Your task to perform on an android device: Add usb-c to usb-b to the cart on bestbuy Image 0: 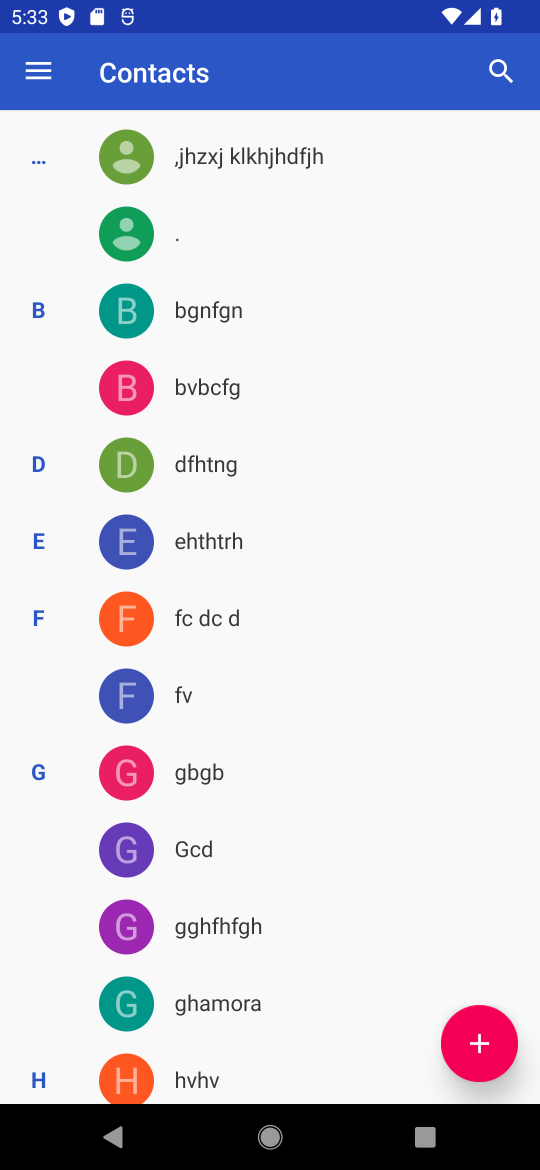
Step 0: press home button
Your task to perform on an android device: Add usb-c to usb-b to the cart on bestbuy Image 1: 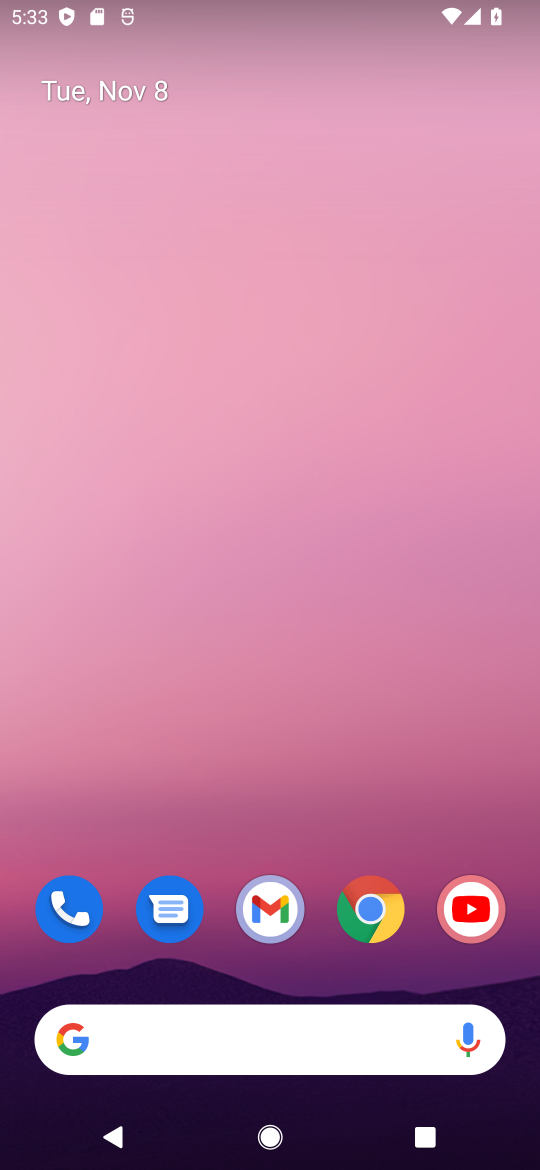
Step 1: click (369, 903)
Your task to perform on an android device: Add usb-c to usb-b to the cart on bestbuy Image 2: 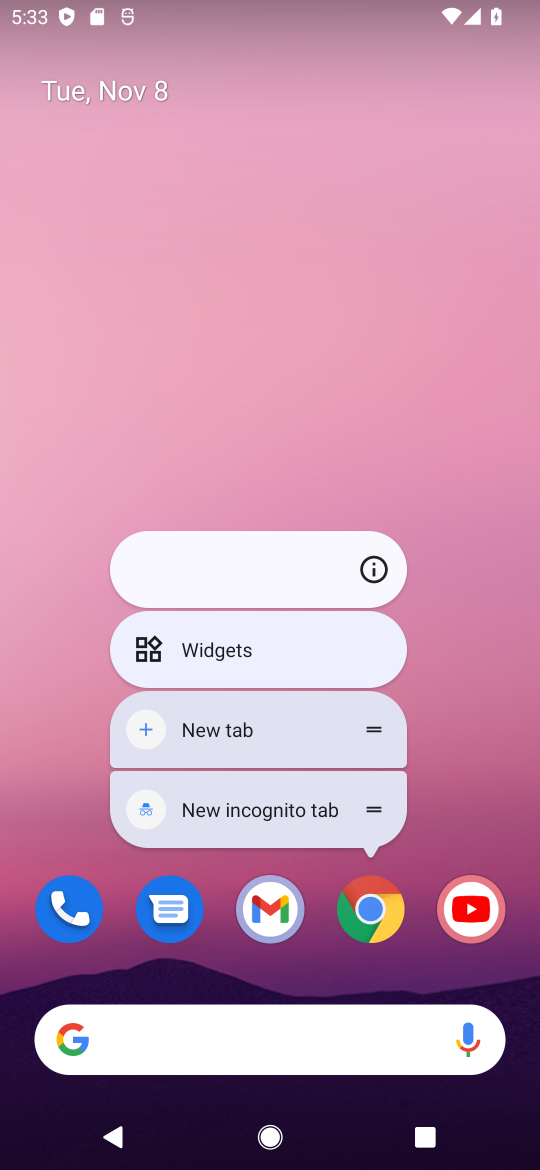
Step 2: click (369, 912)
Your task to perform on an android device: Add usb-c to usb-b to the cart on bestbuy Image 3: 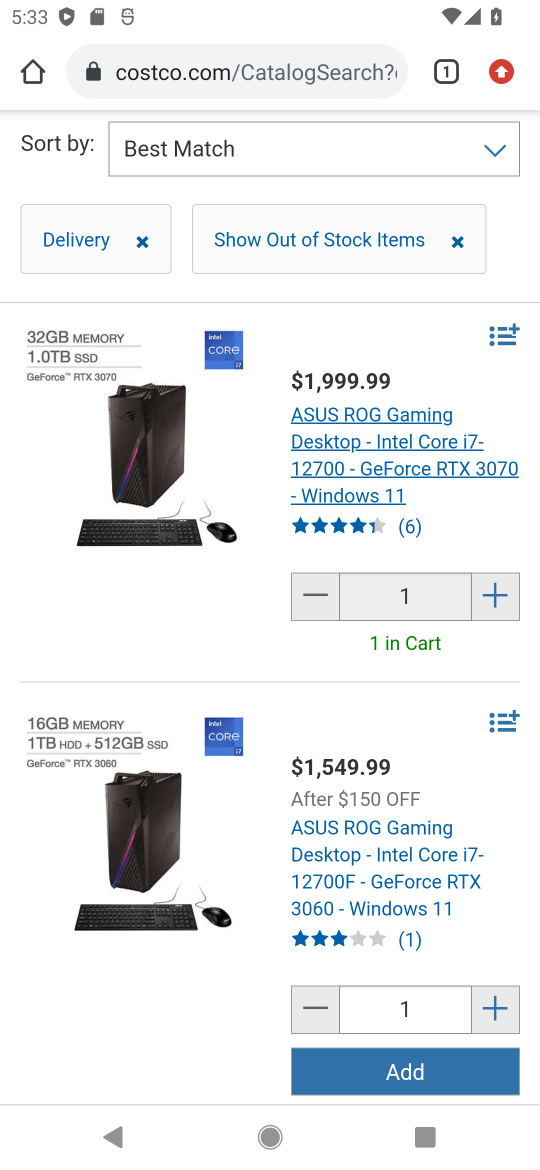
Step 3: click (339, 61)
Your task to perform on an android device: Add usb-c to usb-b to the cart on bestbuy Image 4: 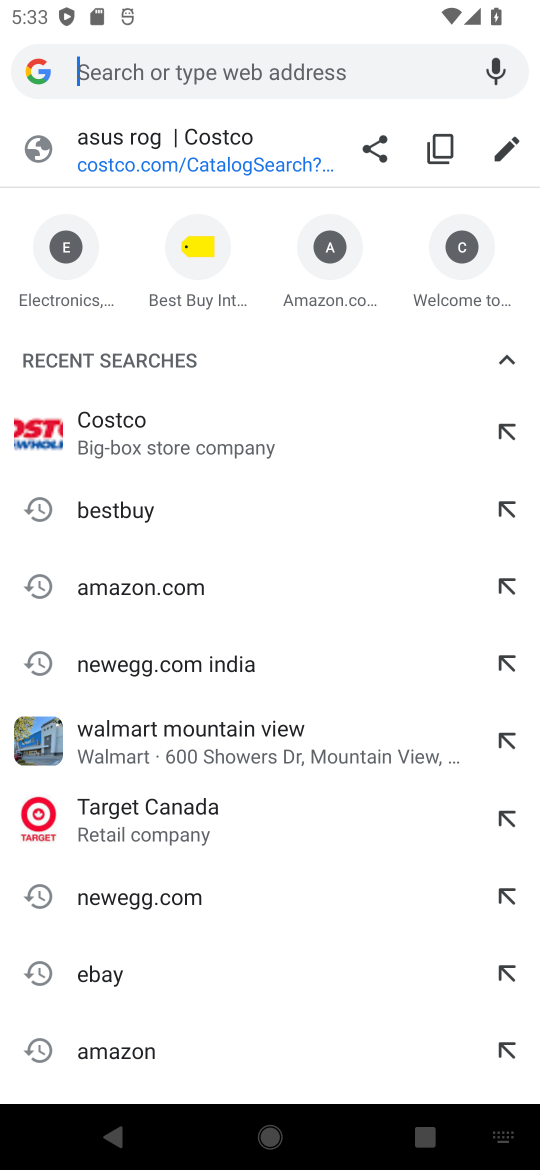
Step 4: click (114, 510)
Your task to perform on an android device: Add usb-c to usb-b to the cart on bestbuy Image 5: 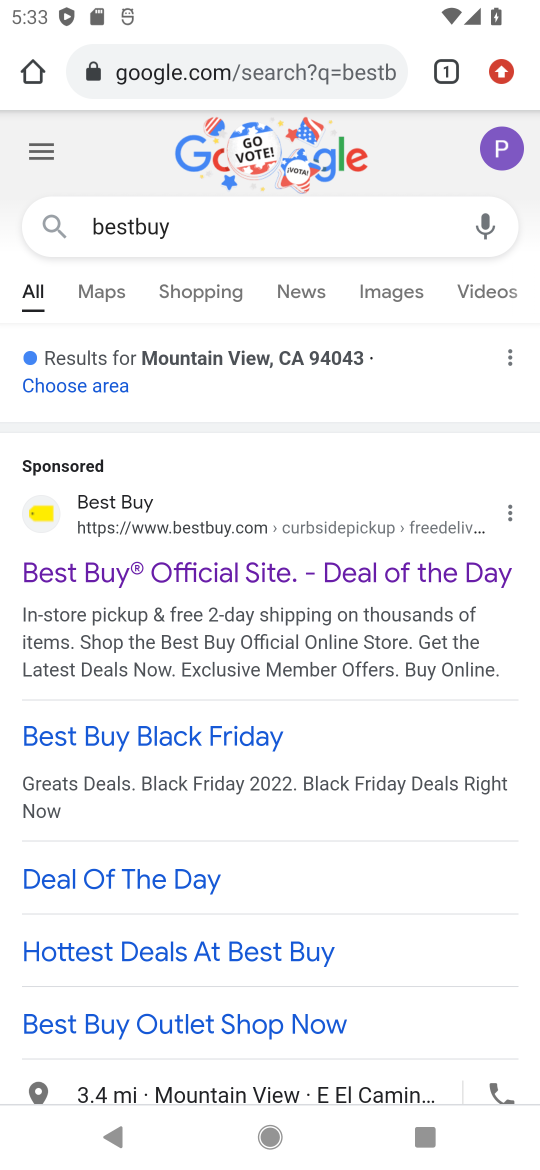
Step 5: click (207, 581)
Your task to perform on an android device: Add usb-c to usb-b to the cart on bestbuy Image 6: 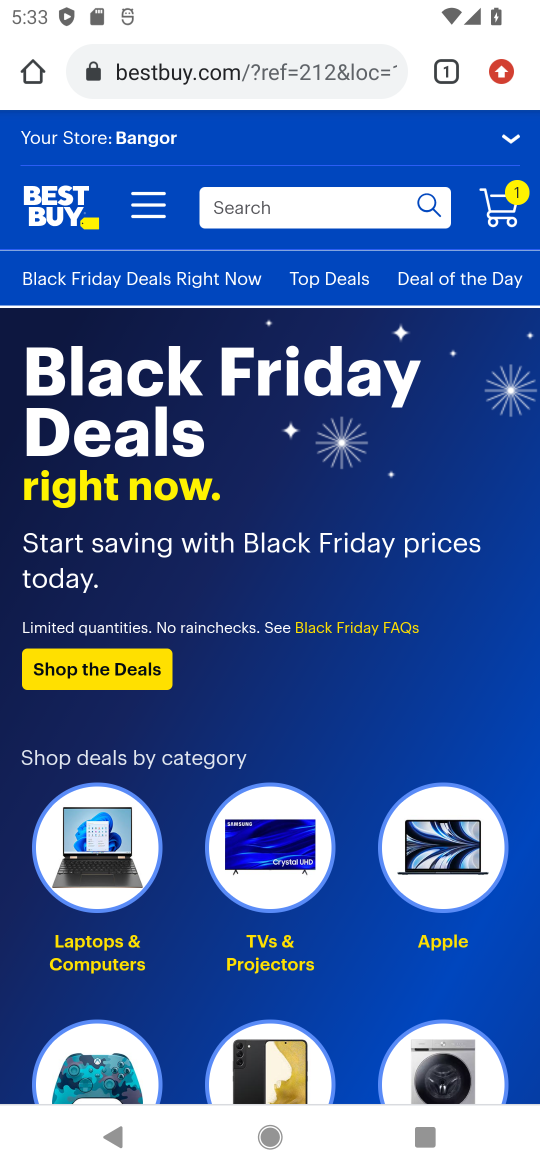
Step 6: click (232, 199)
Your task to perform on an android device: Add usb-c to usb-b to the cart on bestbuy Image 7: 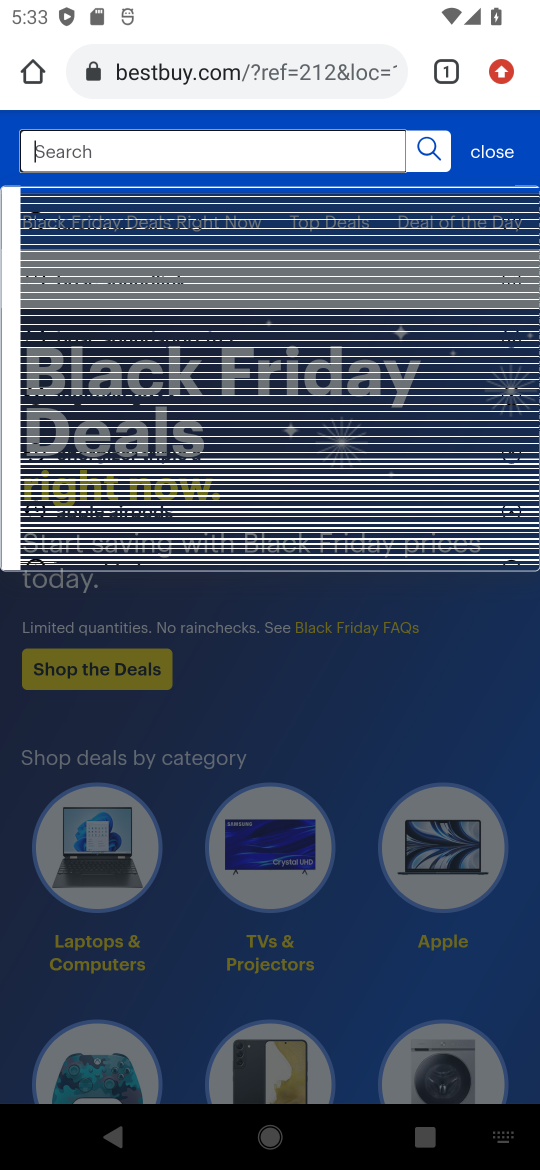
Step 7: type "usb-c to usb-b"
Your task to perform on an android device: Add usb-c to usb-b to the cart on bestbuy Image 8: 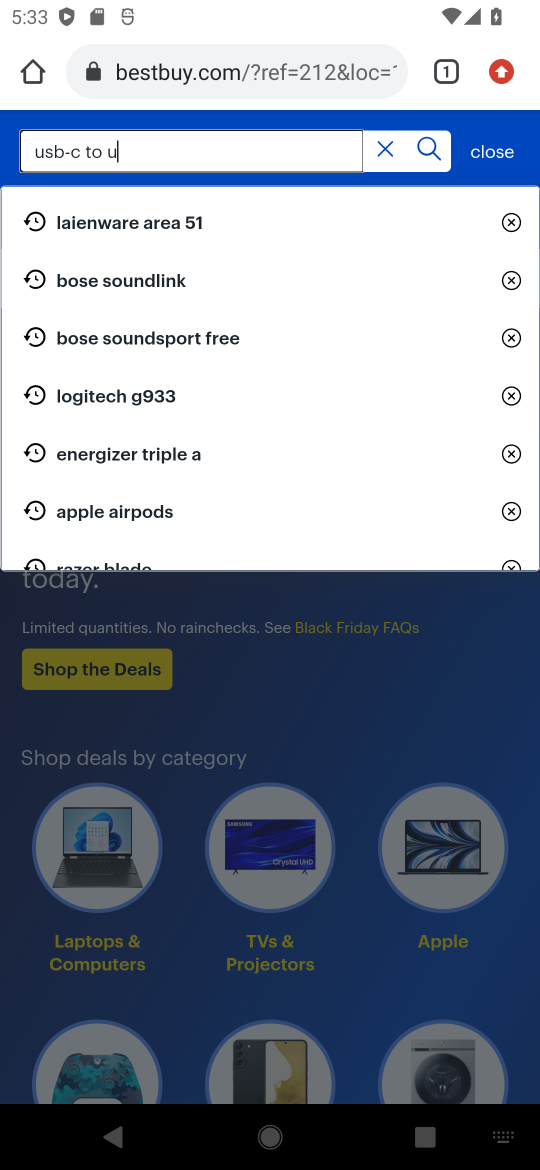
Step 8: press enter
Your task to perform on an android device: Add usb-c to usb-b to the cart on bestbuy Image 9: 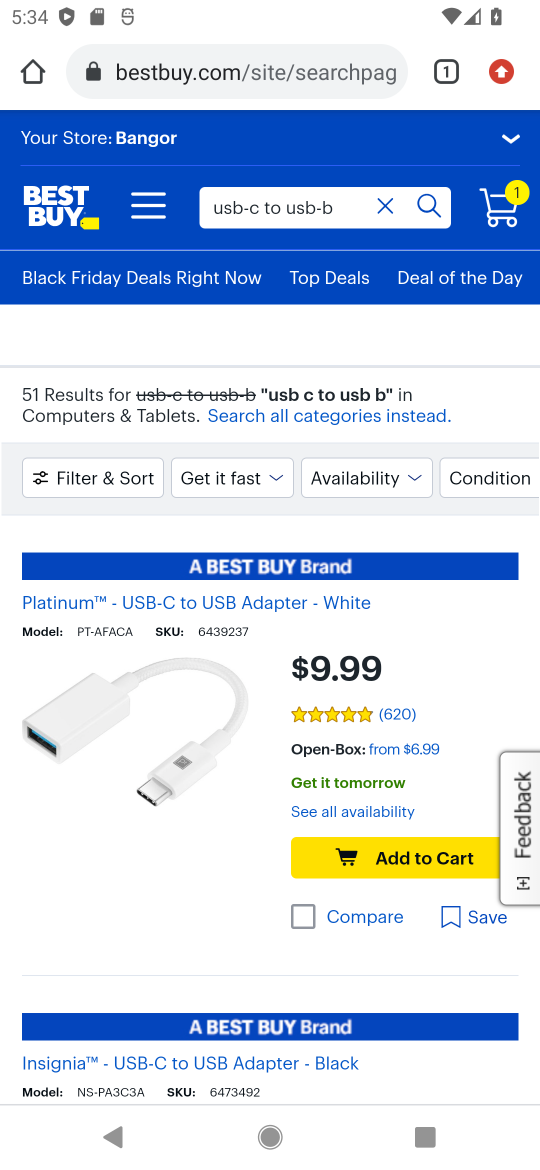
Step 9: click (433, 859)
Your task to perform on an android device: Add usb-c to usb-b to the cart on bestbuy Image 10: 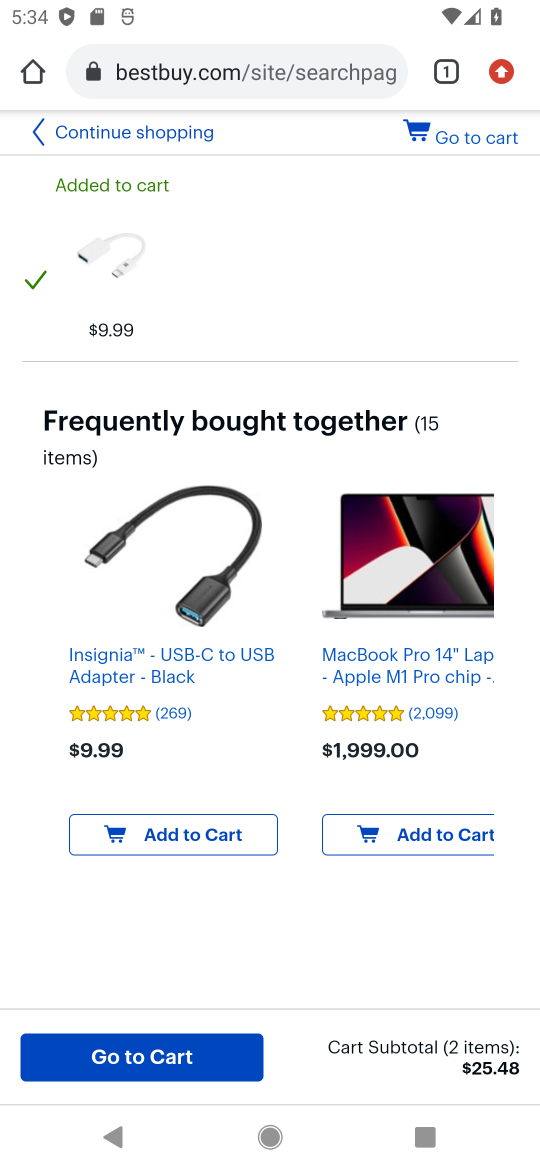
Step 10: click (474, 142)
Your task to perform on an android device: Add usb-c to usb-b to the cart on bestbuy Image 11: 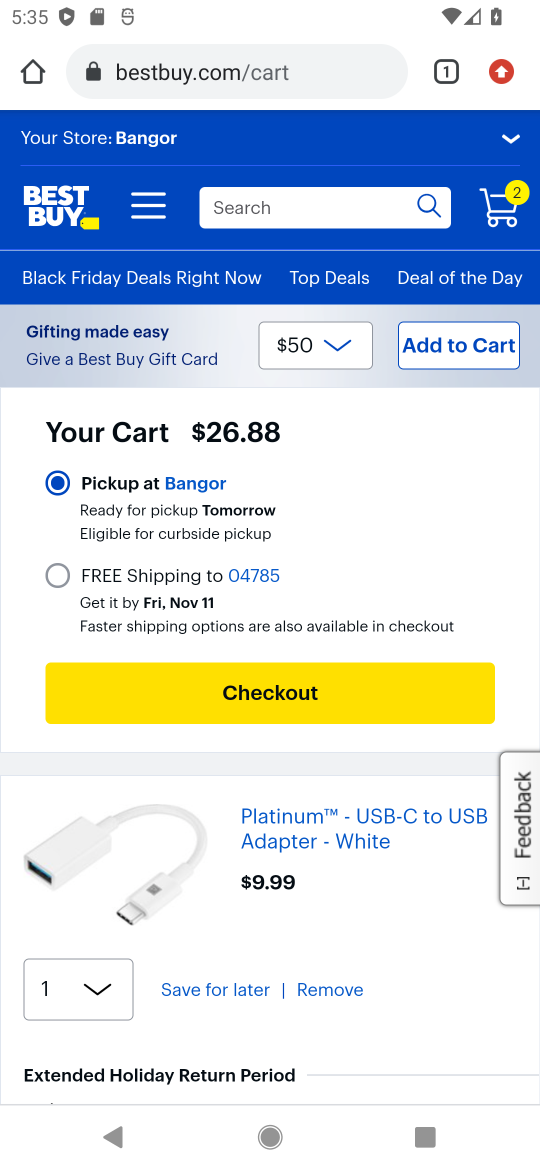
Step 11: task complete